Your task to perform on an android device: install app "Pinterest" Image 0: 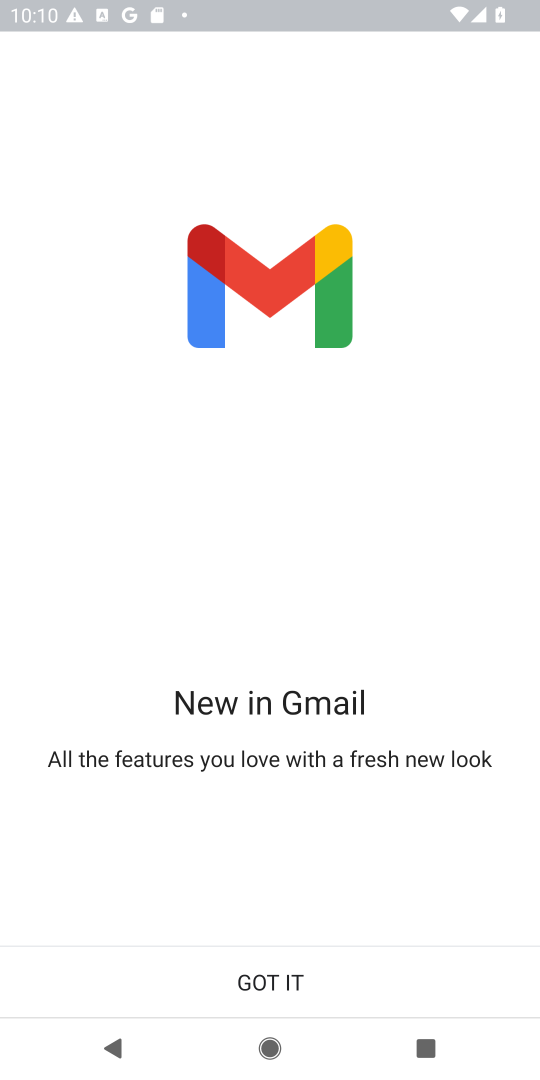
Step 0: press home button
Your task to perform on an android device: install app "Pinterest" Image 1: 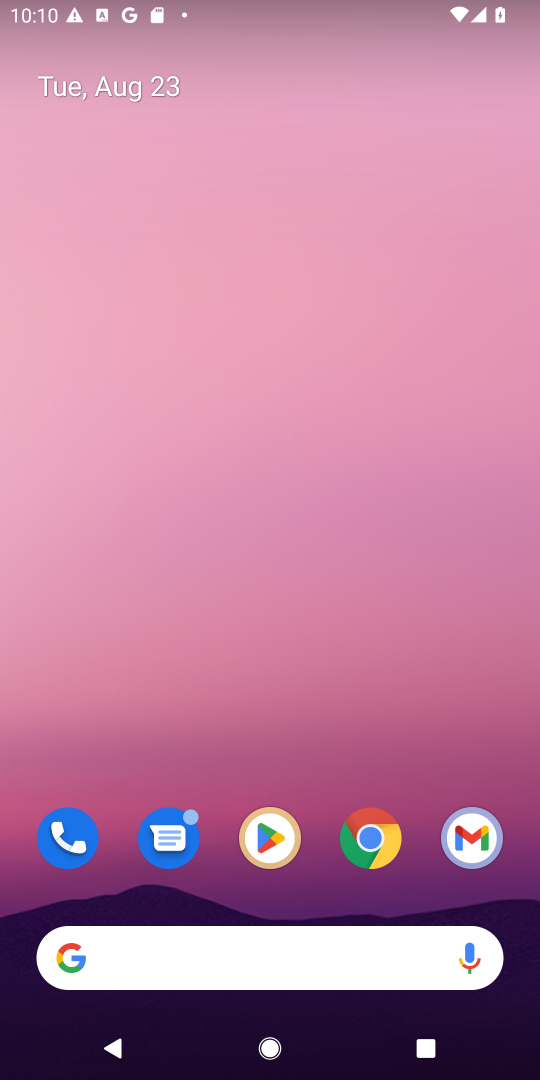
Step 1: click (283, 834)
Your task to perform on an android device: install app "Pinterest" Image 2: 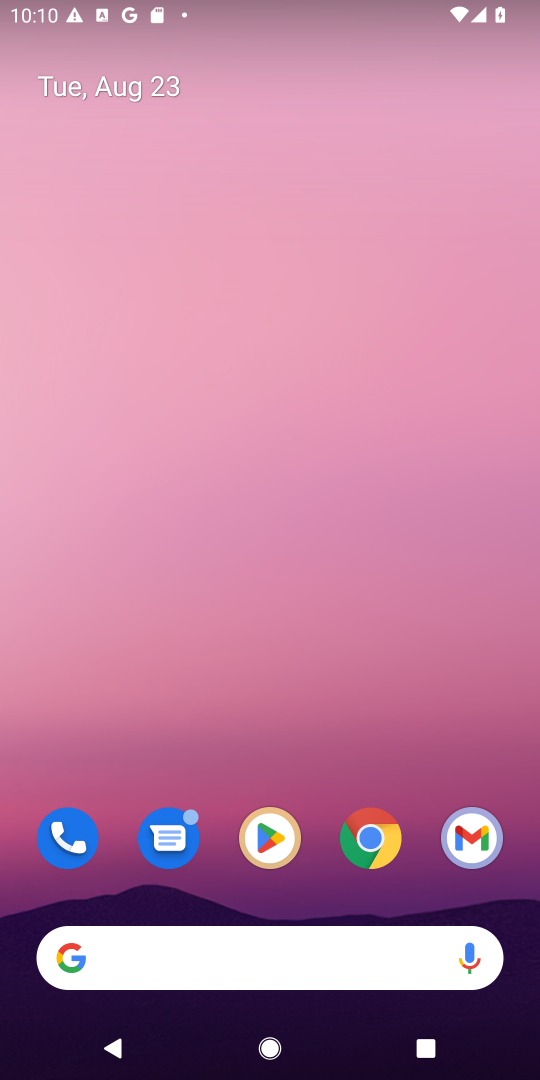
Step 2: click (280, 853)
Your task to perform on an android device: install app "Pinterest" Image 3: 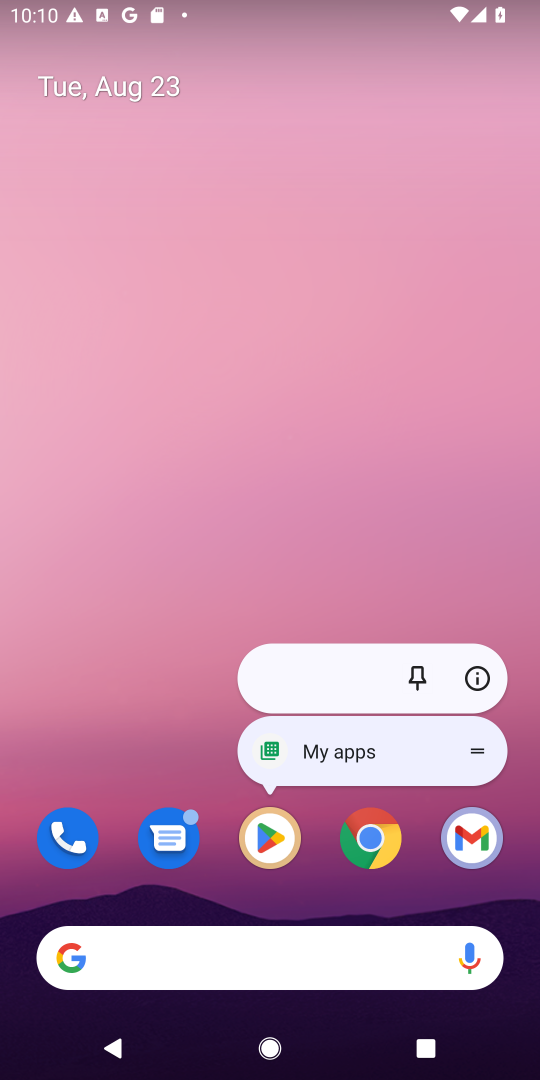
Step 3: click (280, 853)
Your task to perform on an android device: install app "Pinterest" Image 4: 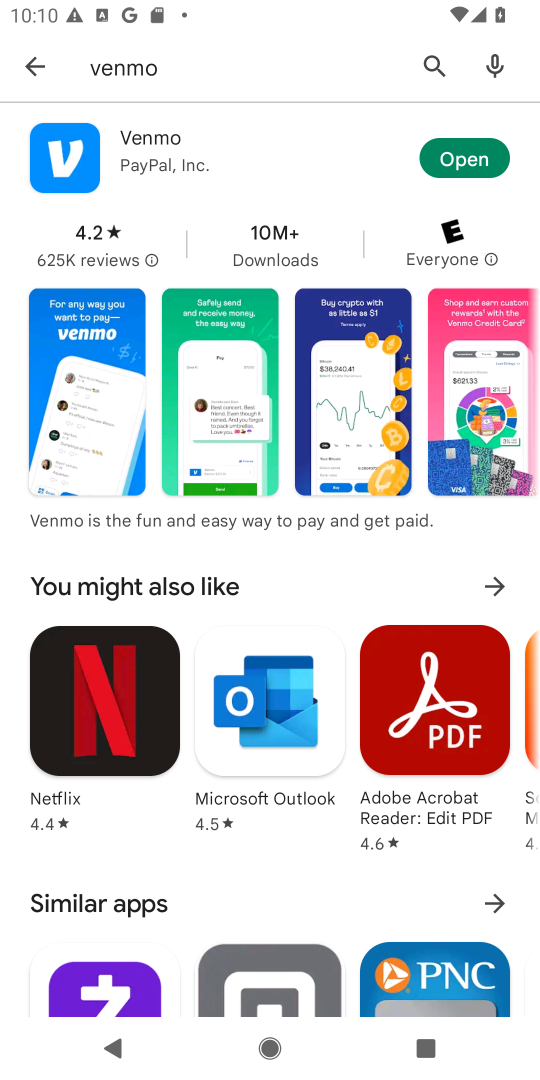
Step 4: click (431, 80)
Your task to perform on an android device: install app "Pinterest" Image 5: 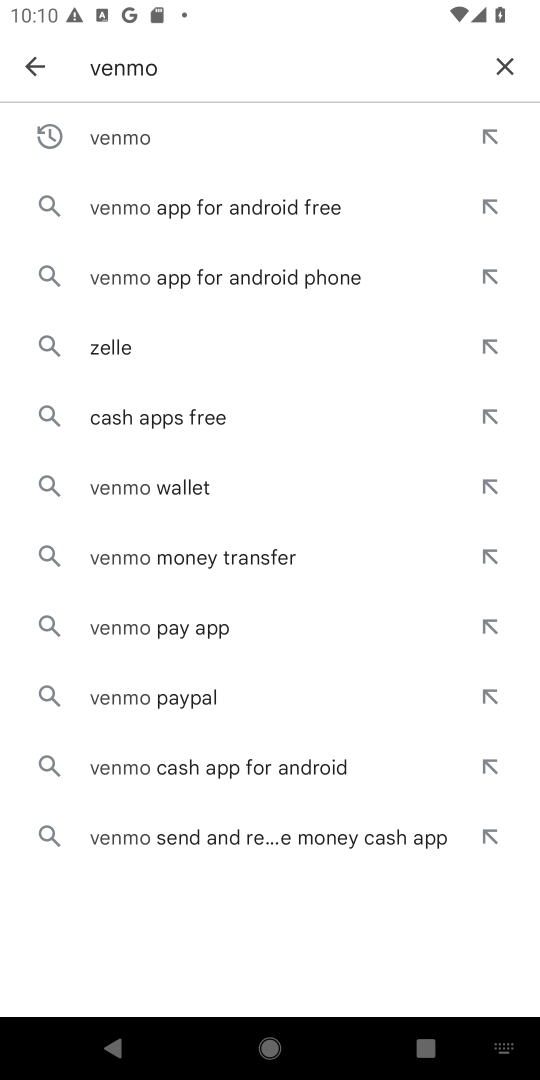
Step 5: click (496, 67)
Your task to perform on an android device: install app "Pinterest" Image 6: 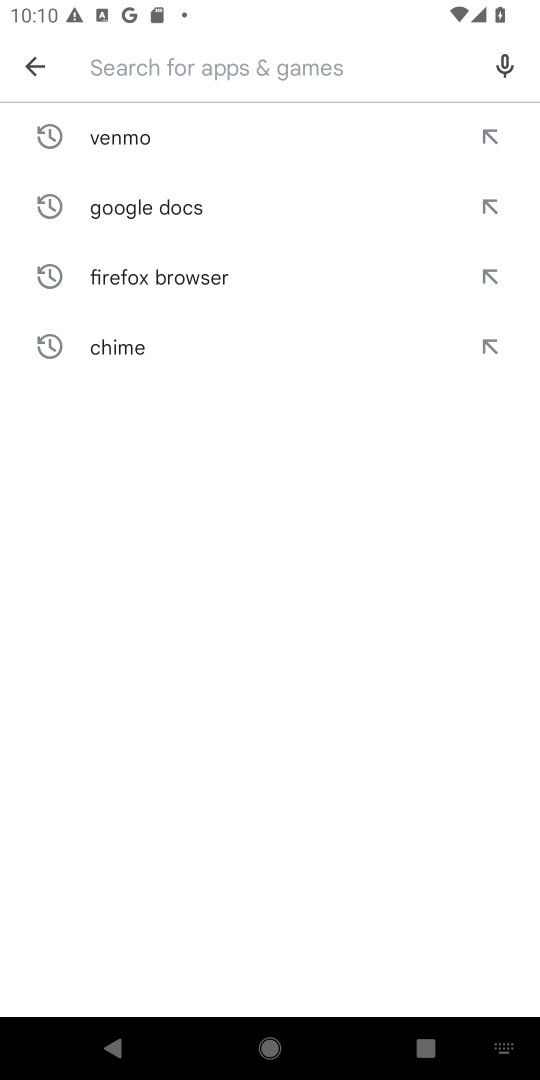
Step 6: type "Pinterest"
Your task to perform on an android device: install app "Pinterest" Image 7: 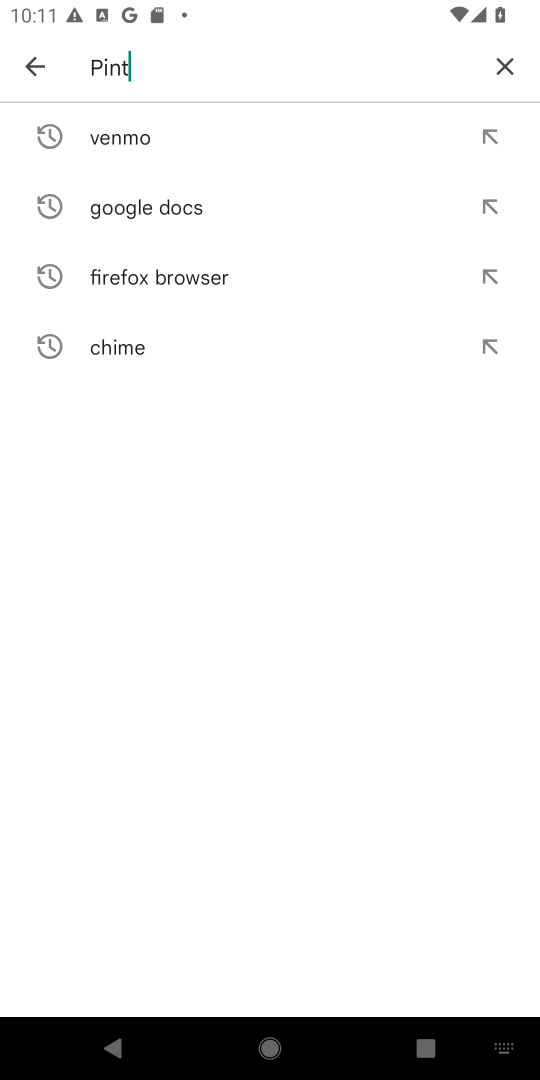
Step 7: type ""
Your task to perform on an android device: install app "Pinterest" Image 8: 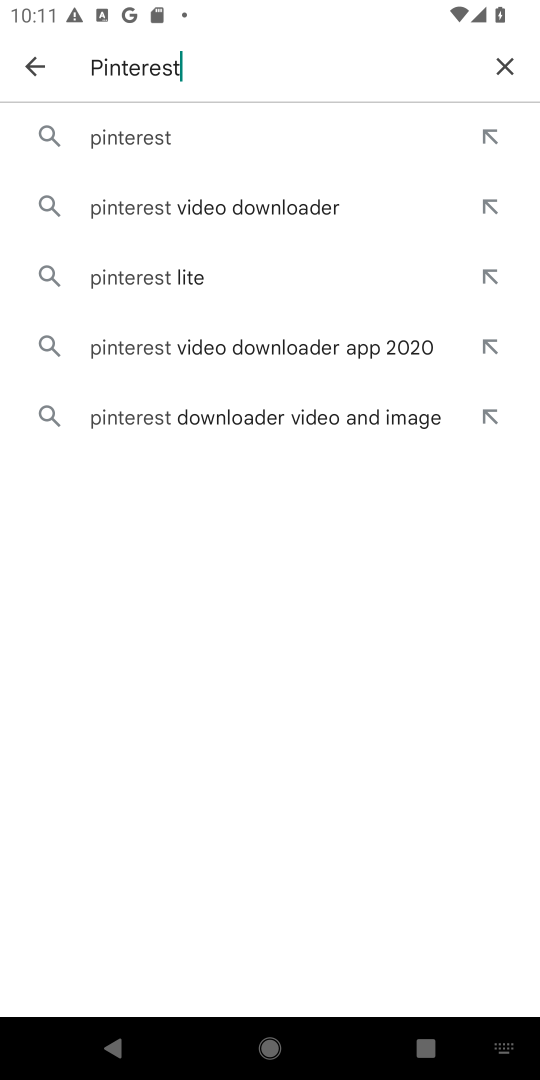
Step 8: click (182, 126)
Your task to perform on an android device: install app "Pinterest" Image 9: 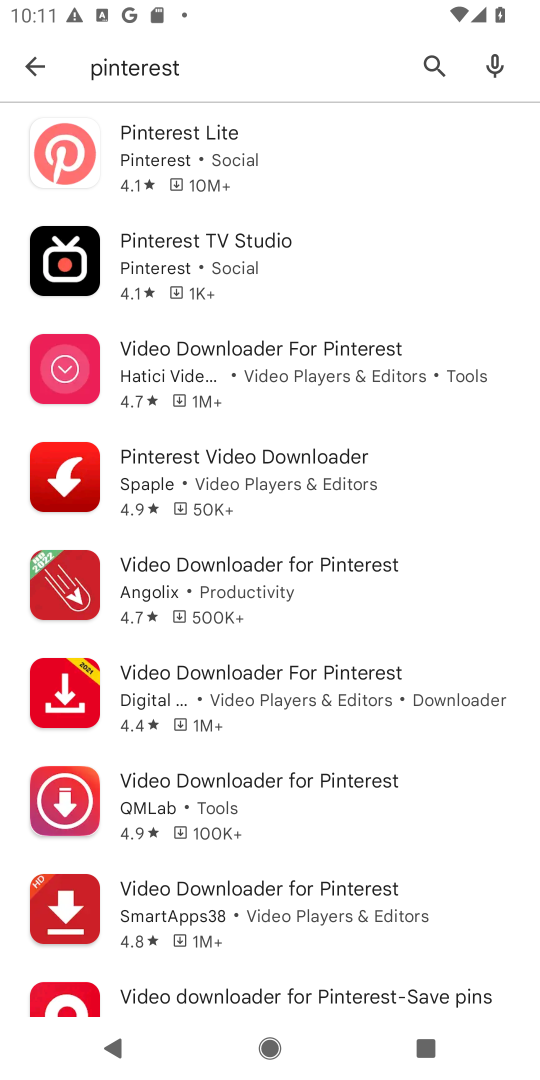
Step 9: click (292, 165)
Your task to perform on an android device: install app "Pinterest" Image 10: 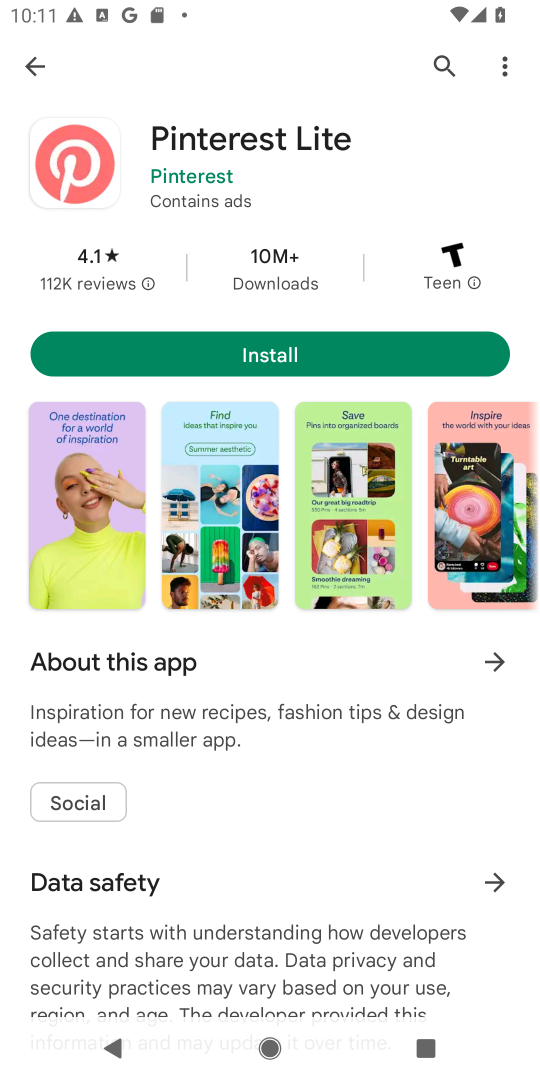
Step 10: click (322, 343)
Your task to perform on an android device: install app "Pinterest" Image 11: 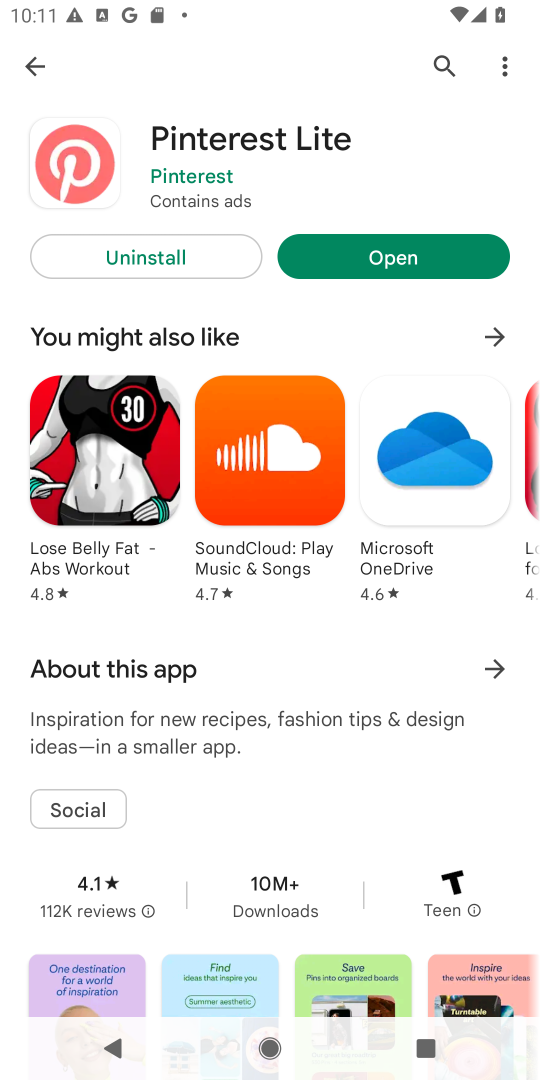
Step 11: task complete